Your task to perform on an android device: Search for pizza restaurants on Maps Image 0: 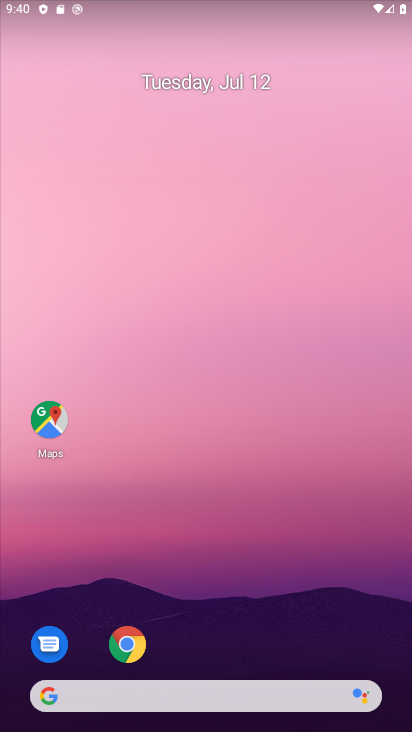
Step 0: click (59, 428)
Your task to perform on an android device: Search for pizza restaurants on Maps Image 1: 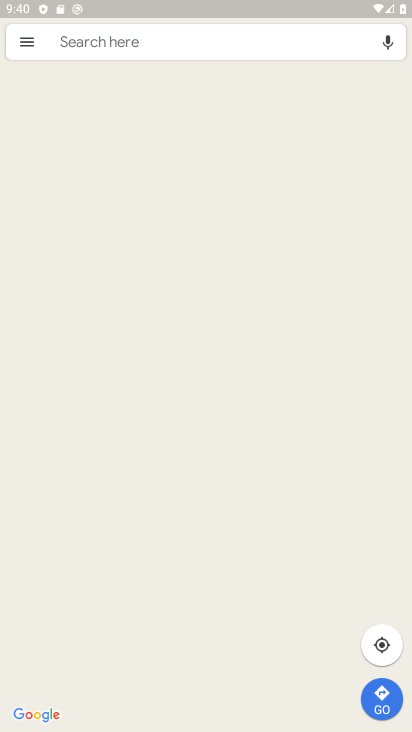
Step 1: click (197, 46)
Your task to perform on an android device: Search for pizza restaurants on Maps Image 2: 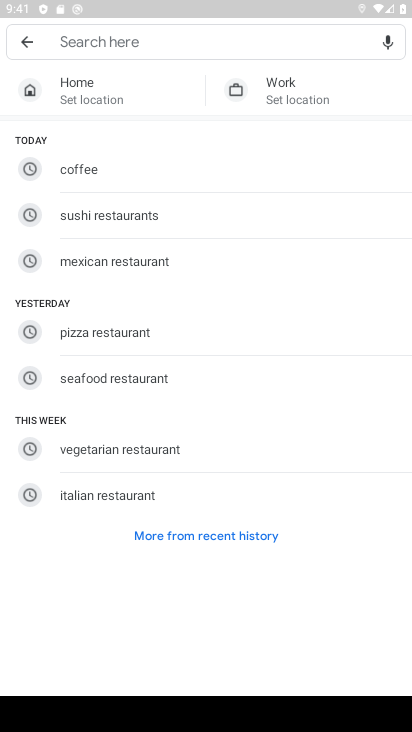
Step 2: type "pizza "
Your task to perform on an android device: Search for pizza restaurants on Maps Image 3: 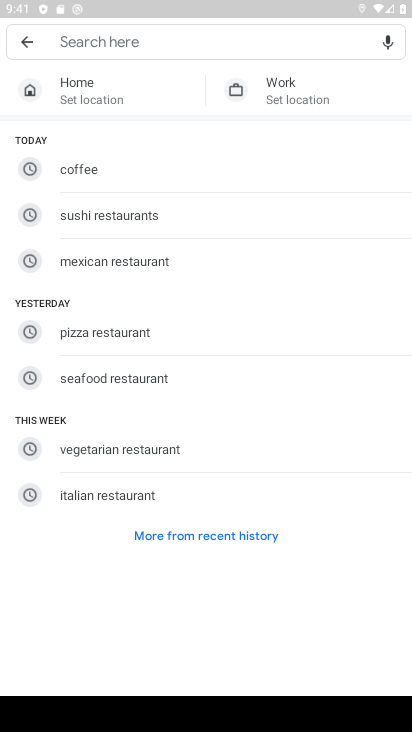
Step 3: click (132, 329)
Your task to perform on an android device: Search for pizza restaurants on Maps Image 4: 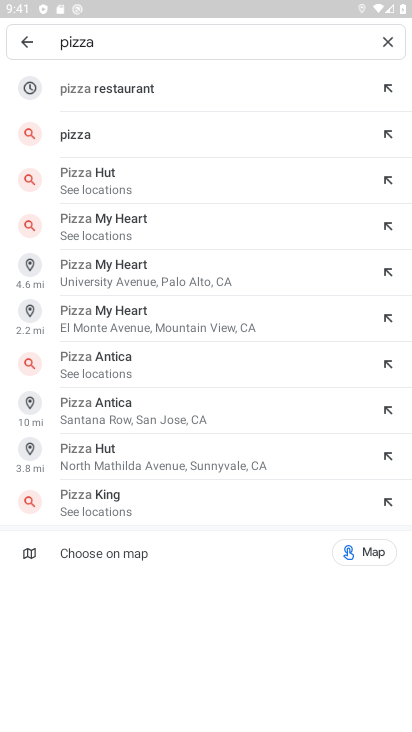
Step 4: click (151, 82)
Your task to perform on an android device: Search for pizza restaurants on Maps Image 5: 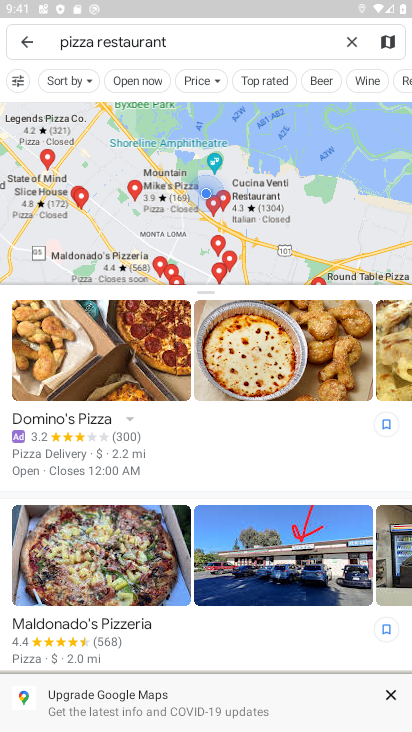
Step 5: task complete